Your task to perform on an android device: What's the weather going to be tomorrow? Image 0: 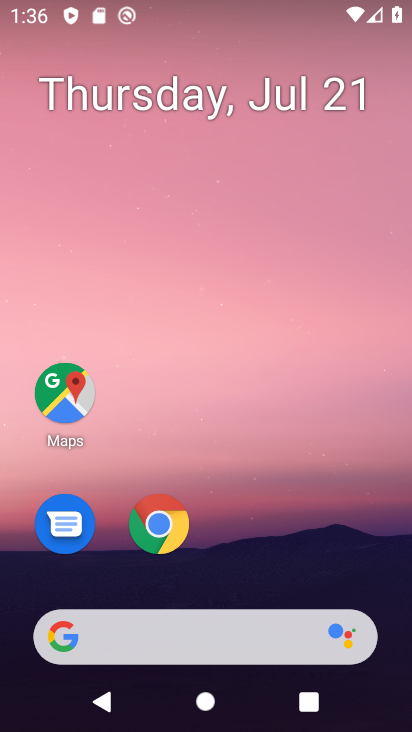
Step 0: click (242, 648)
Your task to perform on an android device: What's the weather going to be tomorrow? Image 1: 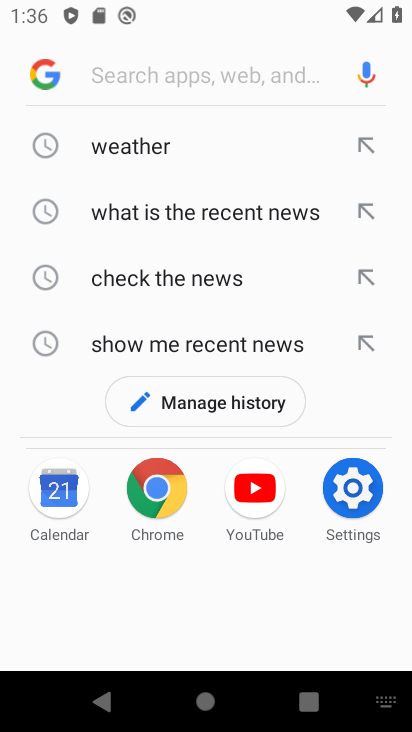
Step 1: click (152, 147)
Your task to perform on an android device: What's the weather going to be tomorrow? Image 2: 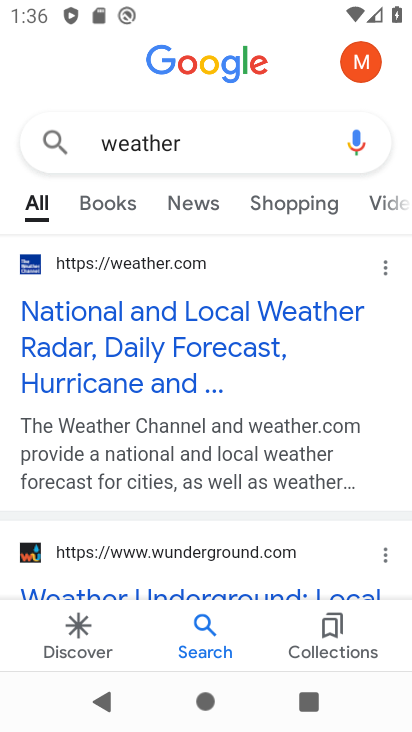
Step 2: drag from (276, 439) to (274, 238)
Your task to perform on an android device: What's the weather going to be tomorrow? Image 3: 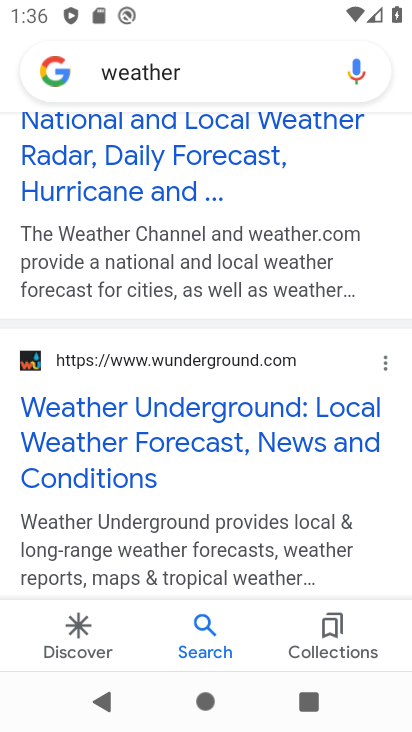
Step 3: drag from (256, 468) to (258, 128)
Your task to perform on an android device: What's the weather going to be tomorrow? Image 4: 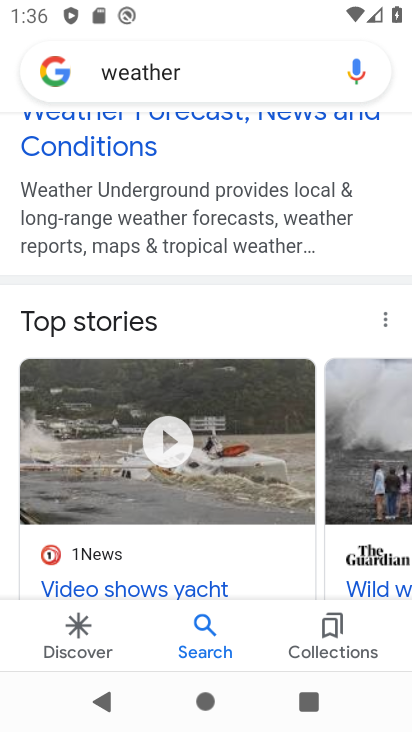
Step 4: drag from (227, 431) to (226, 114)
Your task to perform on an android device: What's the weather going to be tomorrow? Image 5: 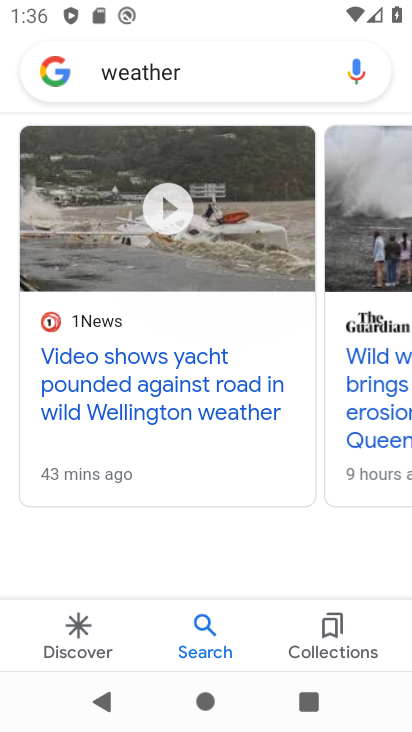
Step 5: drag from (237, 459) to (251, 198)
Your task to perform on an android device: What's the weather going to be tomorrow? Image 6: 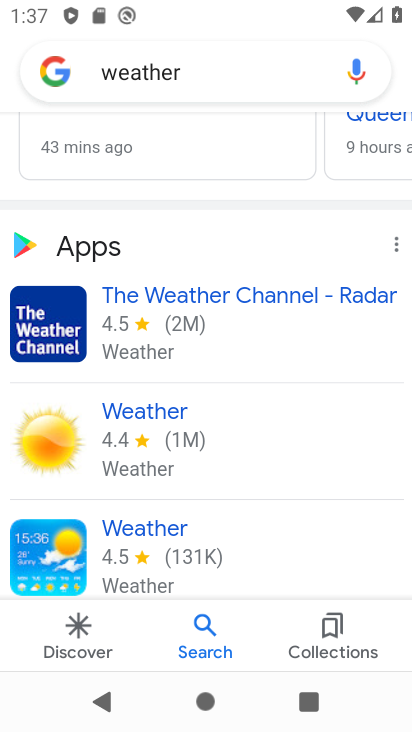
Step 6: drag from (204, 499) to (235, 192)
Your task to perform on an android device: What's the weather going to be tomorrow? Image 7: 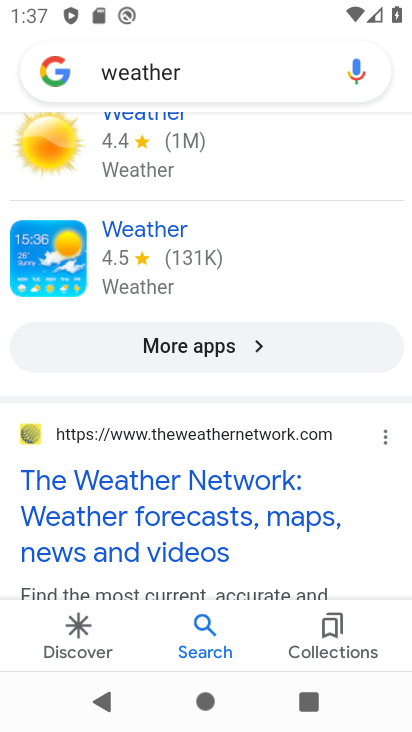
Step 7: click (58, 70)
Your task to perform on an android device: What's the weather going to be tomorrow? Image 8: 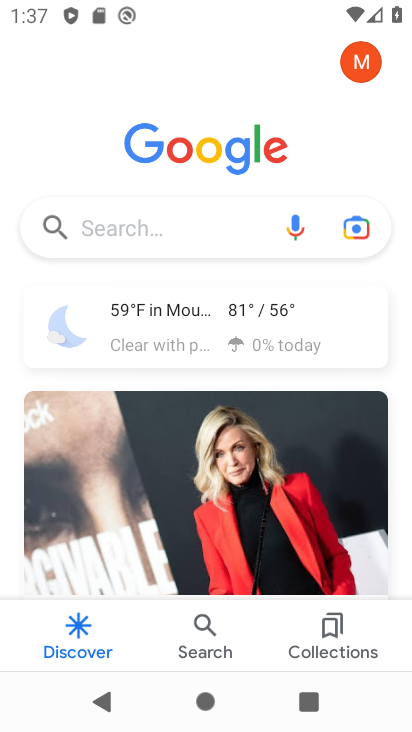
Step 8: click (180, 317)
Your task to perform on an android device: What's the weather going to be tomorrow? Image 9: 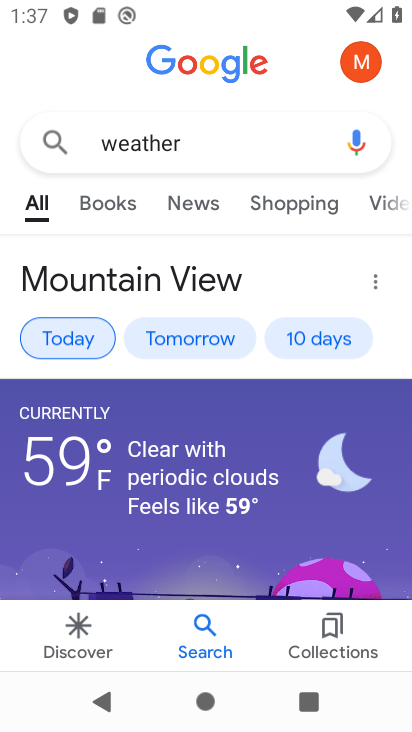
Step 9: click (180, 334)
Your task to perform on an android device: What's the weather going to be tomorrow? Image 10: 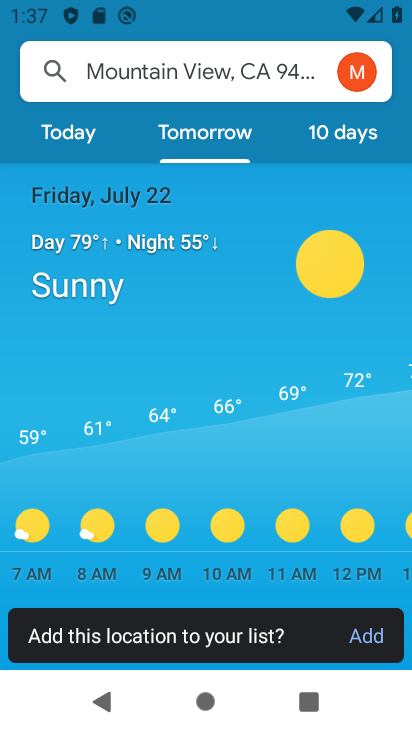
Step 10: task complete